Your task to perform on an android device: change text size in settings app Image 0: 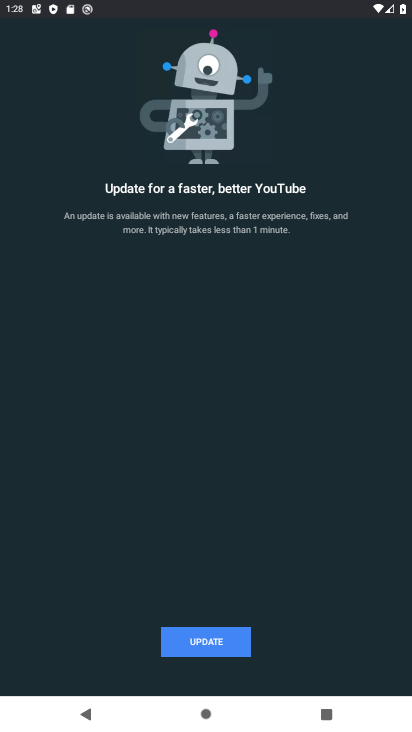
Step 0: press home button
Your task to perform on an android device: change text size in settings app Image 1: 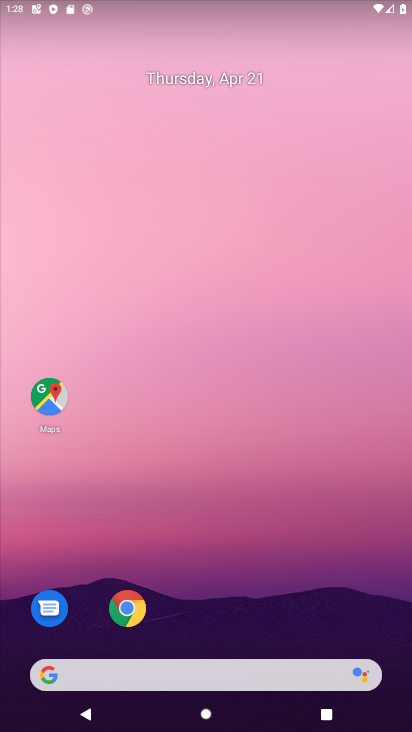
Step 1: drag from (385, 384) to (410, 235)
Your task to perform on an android device: change text size in settings app Image 2: 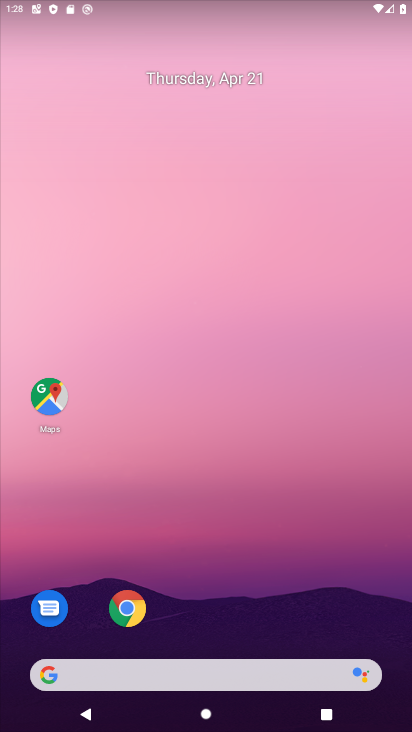
Step 2: drag from (299, 590) to (332, 107)
Your task to perform on an android device: change text size in settings app Image 3: 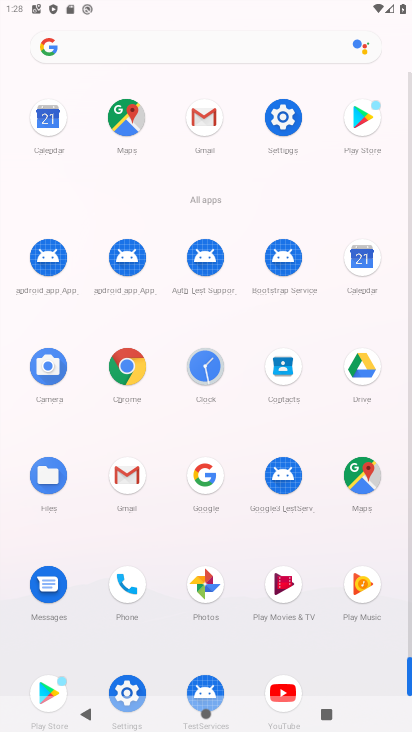
Step 3: click (288, 119)
Your task to perform on an android device: change text size in settings app Image 4: 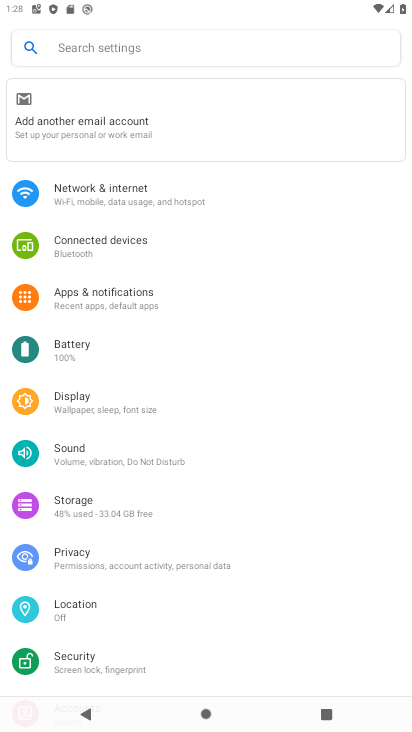
Step 4: drag from (192, 582) to (286, 202)
Your task to perform on an android device: change text size in settings app Image 5: 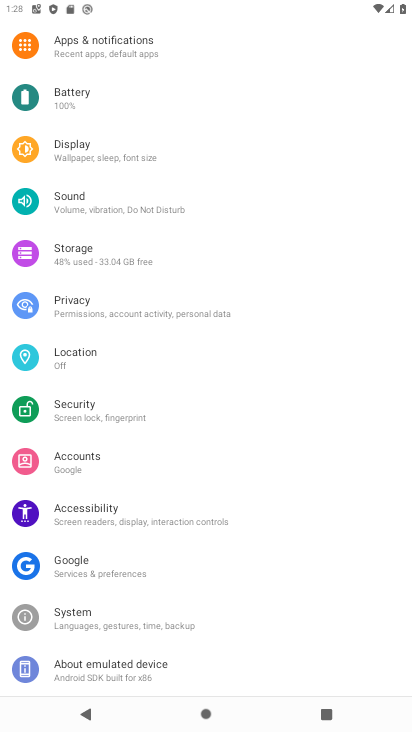
Step 5: drag from (235, 539) to (283, 209)
Your task to perform on an android device: change text size in settings app Image 6: 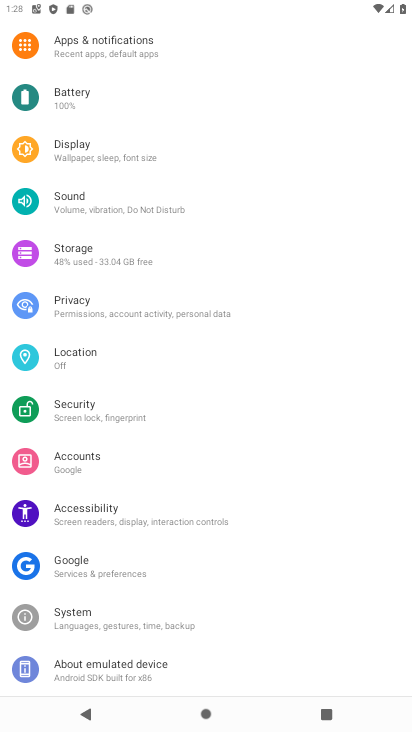
Step 6: drag from (238, 335) to (204, 595)
Your task to perform on an android device: change text size in settings app Image 7: 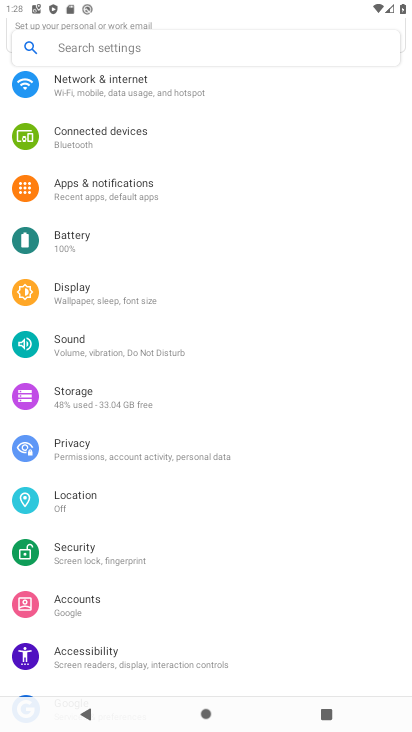
Step 7: drag from (279, 205) to (235, 521)
Your task to perform on an android device: change text size in settings app Image 8: 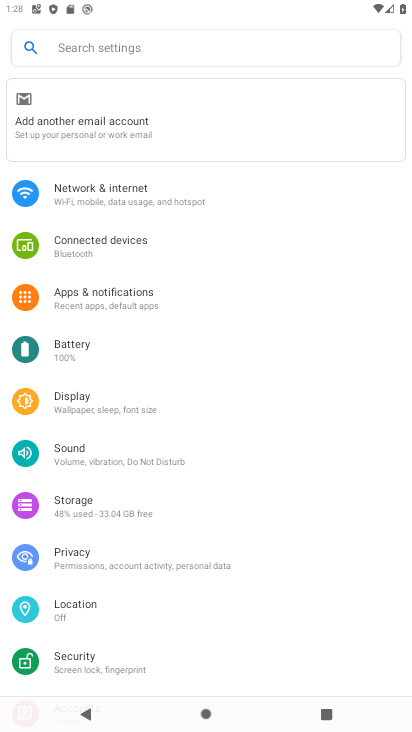
Step 8: drag from (234, 605) to (229, 375)
Your task to perform on an android device: change text size in settings app Image 9: 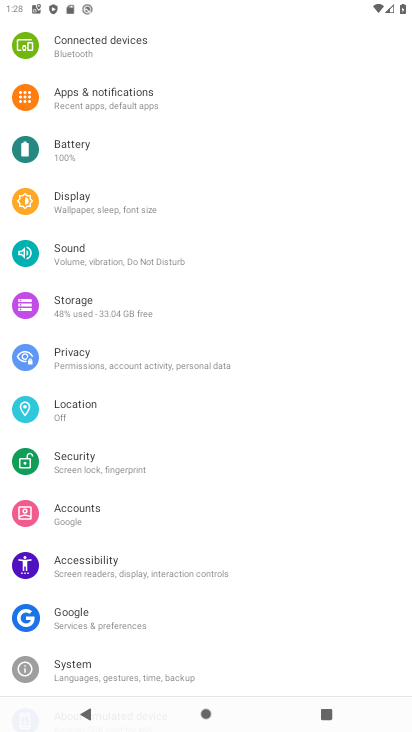
Step 9: click (131, 206)
Your task to perform on an android device: change text size in settings app Image 10: 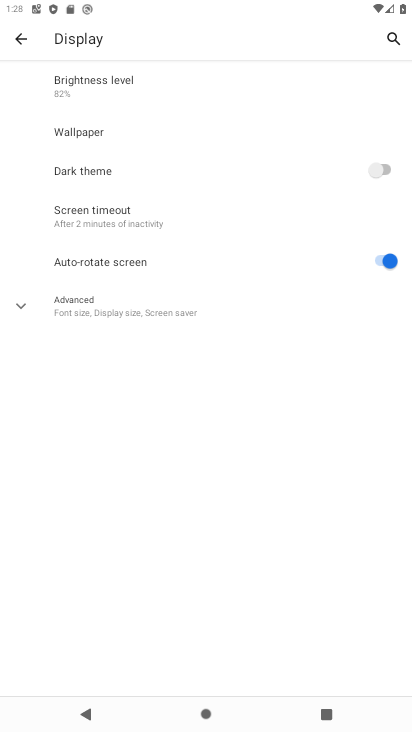
Step 10: click (88, 306)
Your task to perform on an android device: change text size in settings app Image 11: 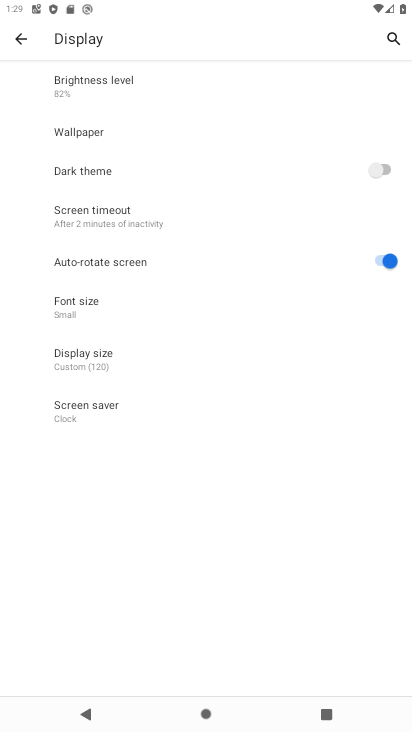
Step 11: click (81, 296)
Your task to perform on an android device: change text size in settings app Image 12: 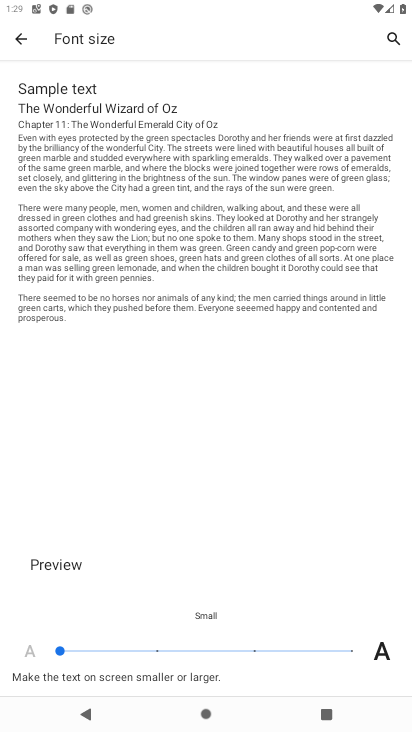
Step 12: click (141, 653)
Your task to perform on an android device: change text size in settings app Image 13: 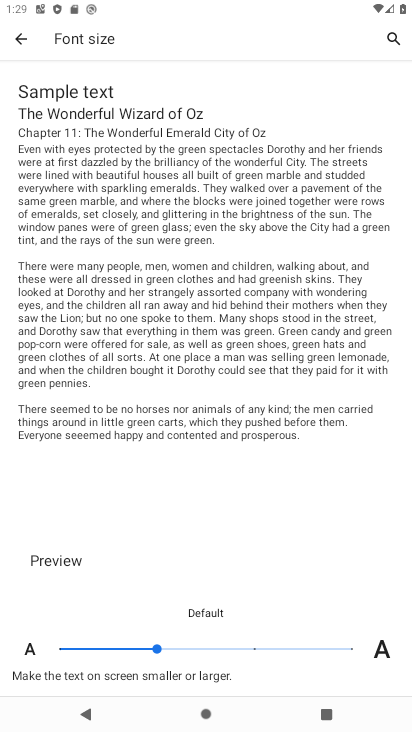
Step 13: task complete